Your task to perform on an android device: toggle notification dots Image 0: 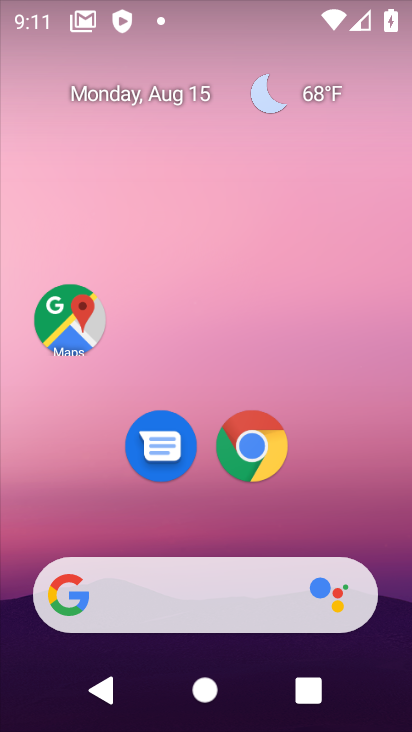
Step 0: drag from (195, 523) to (221, 164)
Your task to perform on an android device: toggle notification dots Image 1: 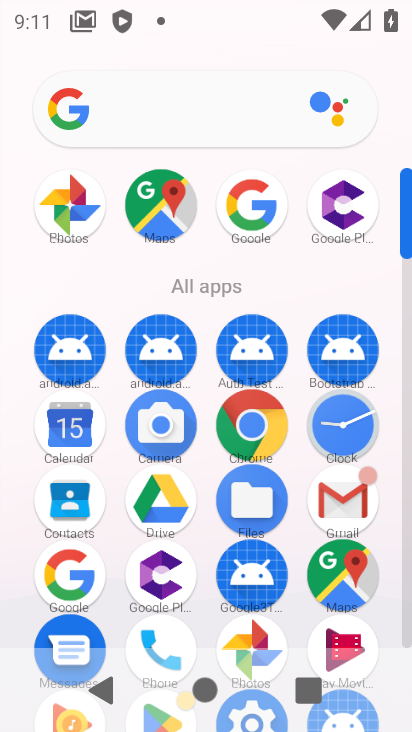
Step 1: drag from (108, 545) to (149, 197)
Your task to perform on an android device: toggle notification dots Image 2: 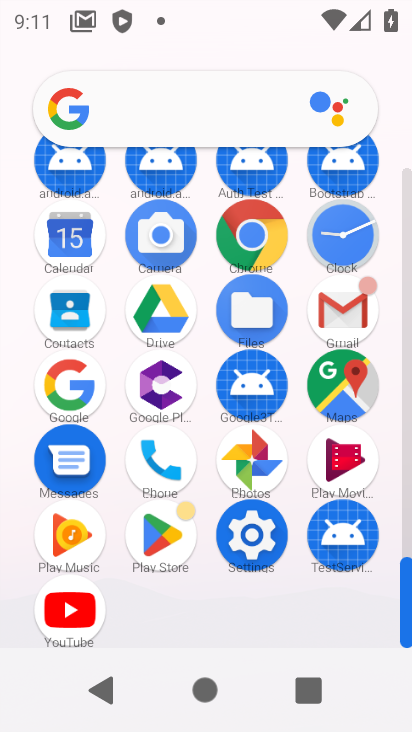
Step 2: click (258, 535)
Your task to perform on an android device: toggle notification dots Image 3: 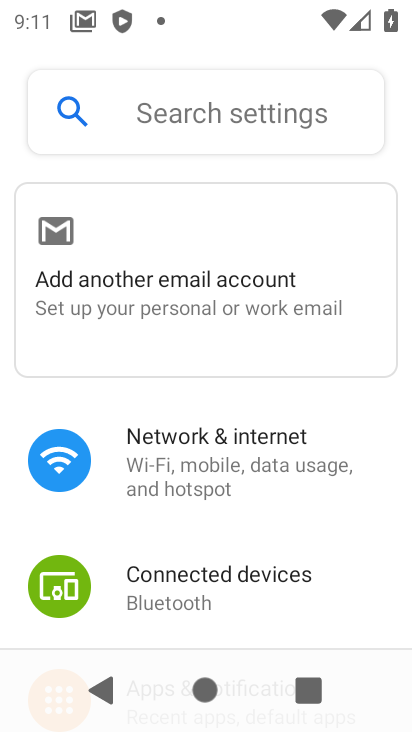
Step 3: drag from (271, 554) to (313, 169)
Your task to perform on an android device: toggle notification dots Image 4: 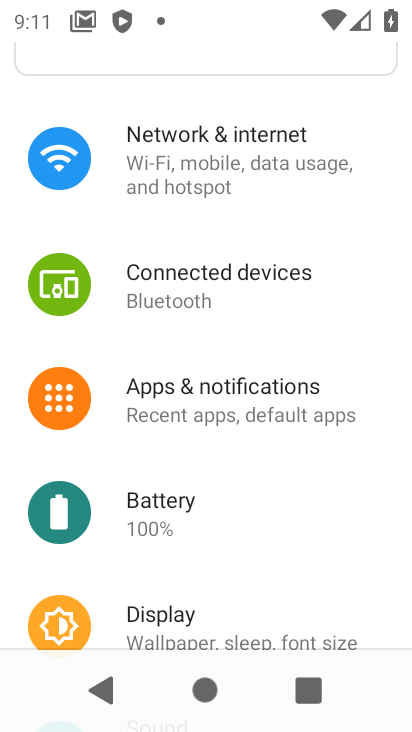
Step 4: click (242, 411)
Your task to perform on an android device: toggle notification dots Image 5: 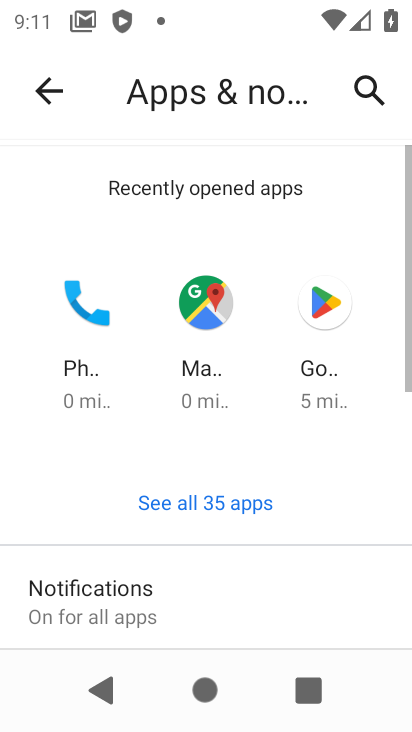
Step 5: drag from (263, 606) to (278, 311)
Your task to perform on an android device: toggle notification dots Image 6: 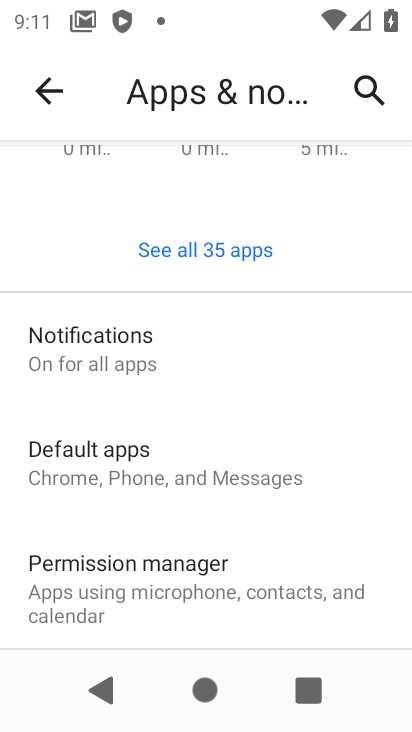
Step 6: click (225, 351)
Your task to perform on an android device: toggle notification dots Image 7: 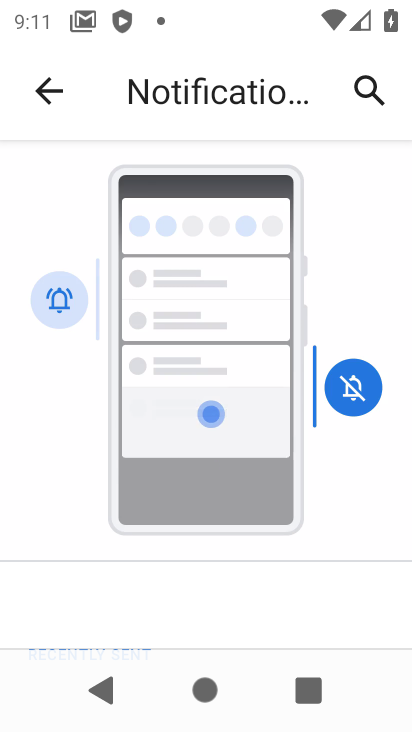
Step 7: drag from (227, 598) to (237, 212)
Your task to perform on an android device: toggle notification dots Image 8: 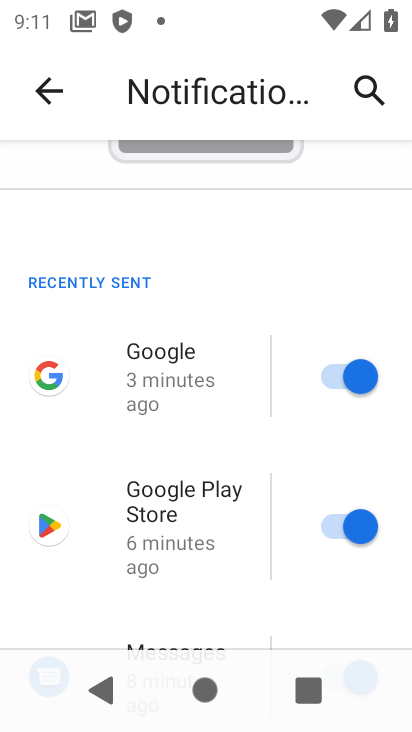
Step 8: drag from (263, 386) to (263, 186)
Your task to perform on an android device: toggle notification dots Image 9: 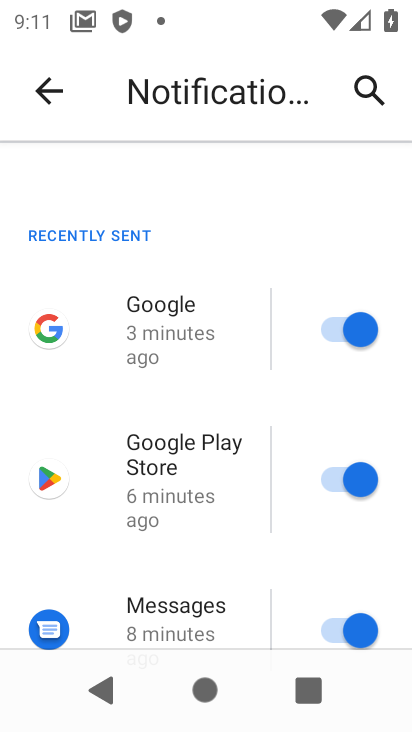
Step 9: drag from (253, 584) to (253, 261)
Your task to perform on an android device: toggle notification dots Image 10: 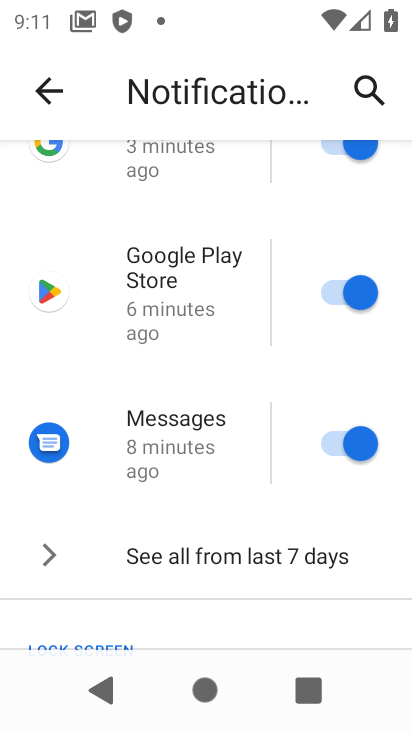
Step 10: drag from (207, 571) to (249, 300)
Your task to perform on an android device: toggle notification dots Image 11: 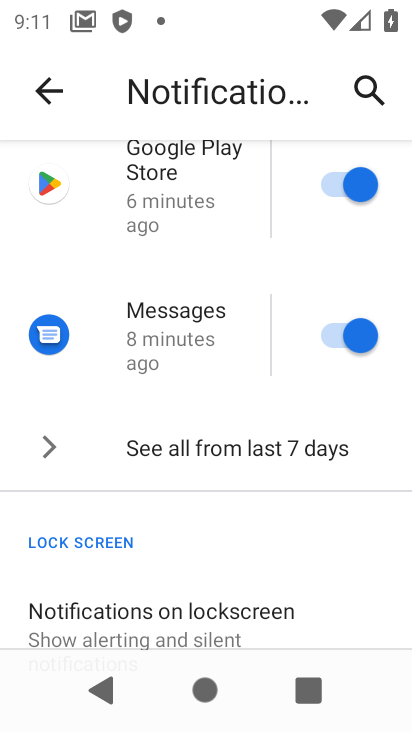
Step 11: drag from (193, 571) to (200, 329)
Your task to perform on an android device: toggle notification dots Image 12: 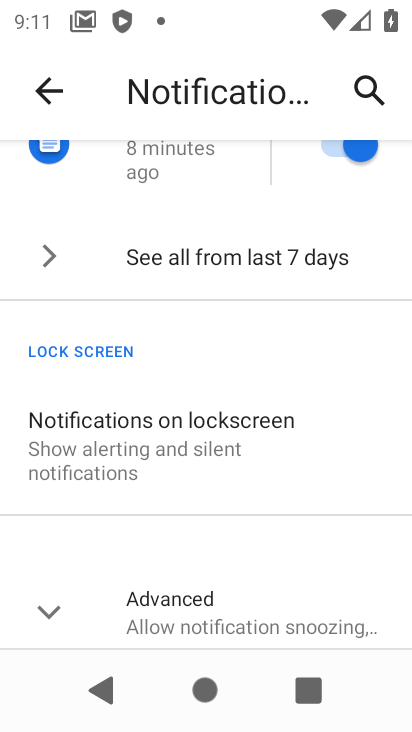
Step 12: click (201, 605)
Your task to perform on an android device: toggle notification dots Image 13: 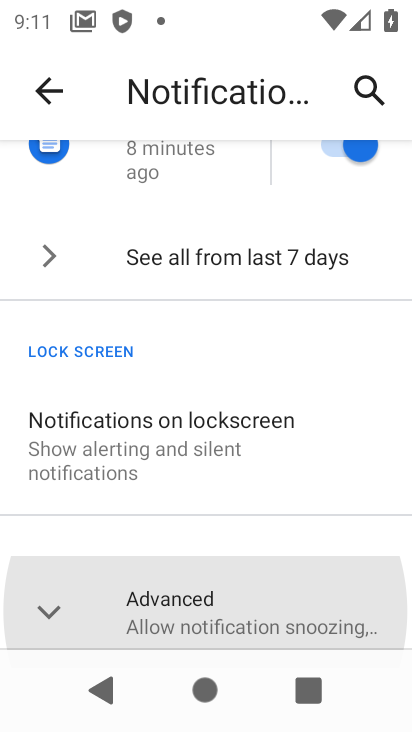
Step 13: drag from (209, 581) to (257, 260)
Your task to perform on an android device: toggle notification dots Image 14: 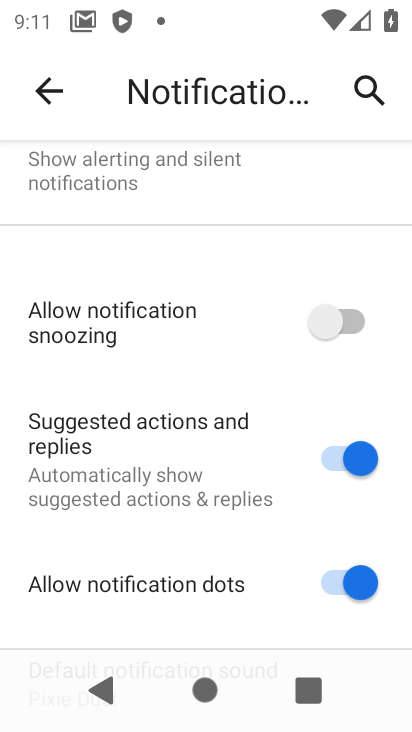
Step 14: click (335, 580)
Your task to perform on an android device: toggle notification dots Image 15: 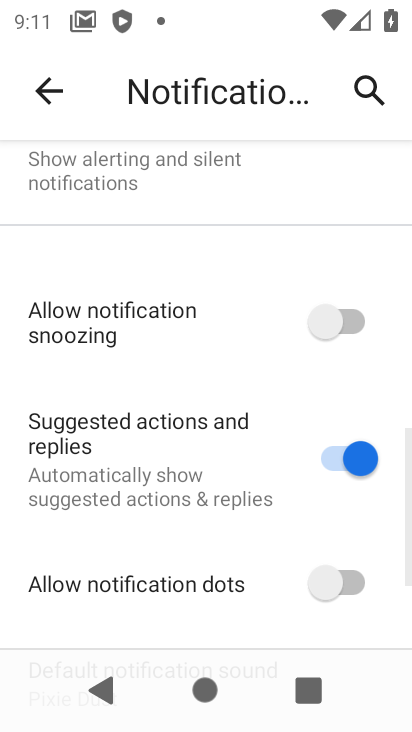
Step 15: task complete